Your task to perform on an android device: What is the news today? Image 0: 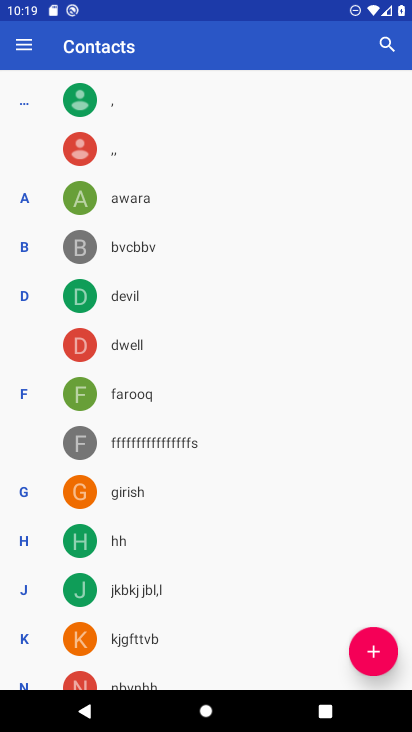
Step 0: press home button
Your task to perform on an android device: What is the news today? Image 1: 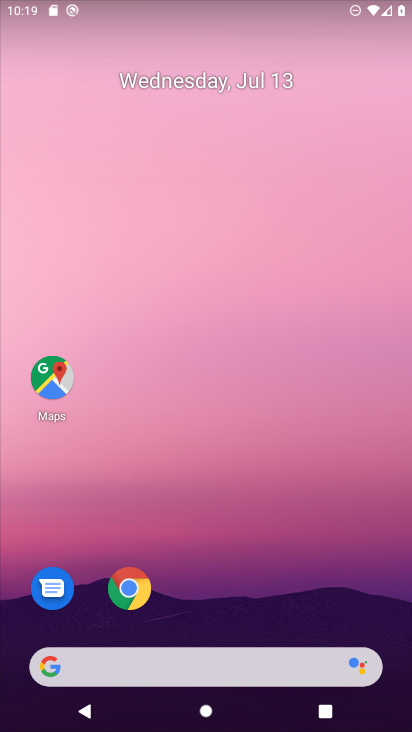
Step 1: click (276, 660)
Your task to perform on an android device: What is the news today? Image 2: 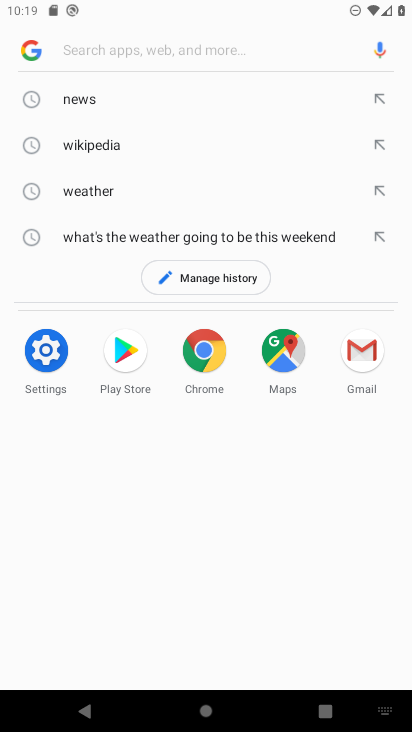
Step 2: click (99, 96)
Your task to perform on an android device: What is the news today? Image 3: 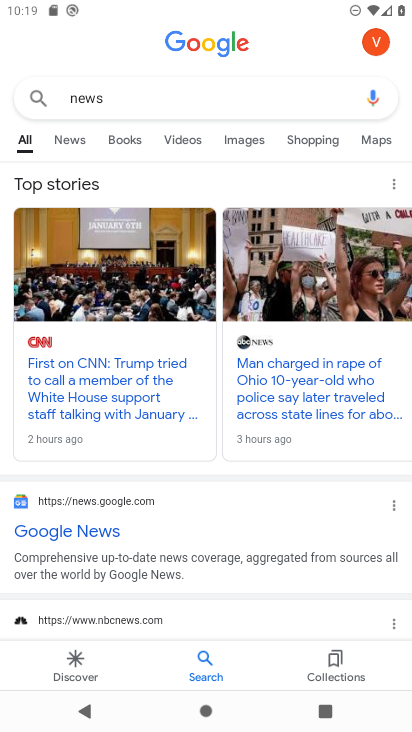
Step 3: click (74, 141)
Your task to perform on an android device: What is the news today? Image 4: 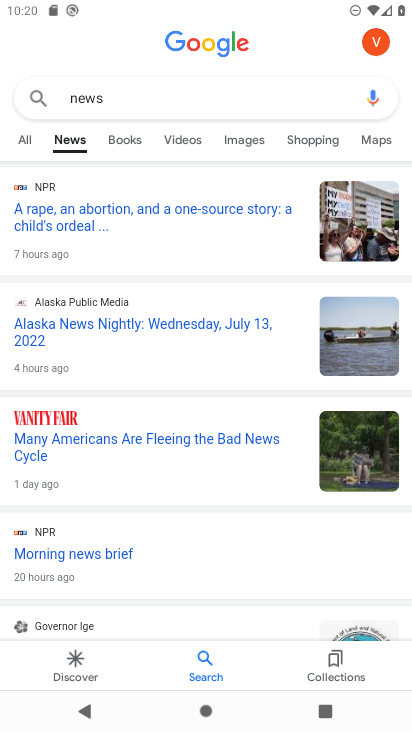
Step 4: task complete